Your task to perform on an android device: turn off smart reply in the gmail app Image 0: 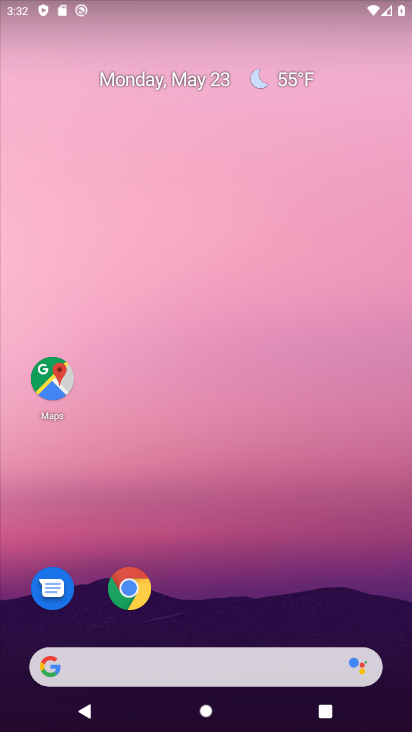
Step 0: drag from (245, 578) to (281, 109)
Your task to perform on an android device: turn off smart reply in the gmail app Image 1: 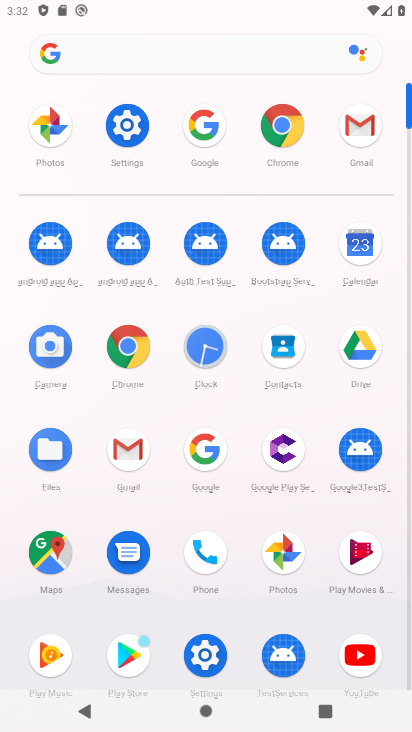
Step 1: click (359, 128)
Your task to perform on an android device: turn off smart reply in the gmail app Image 2: 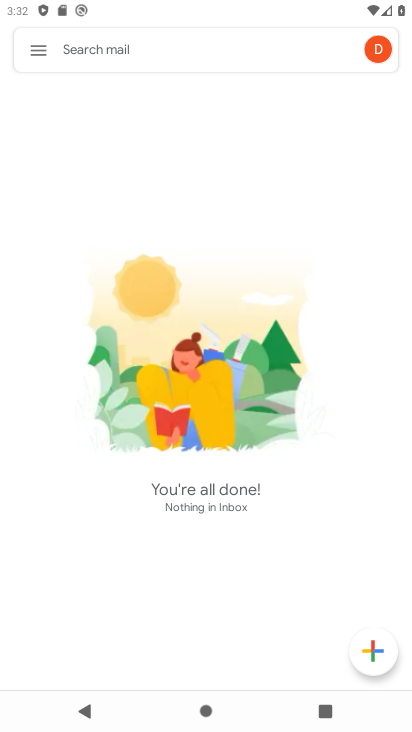
Step 2: click (47, 57)
Your task to perform on an android device: turn off smart reply in the gmail app Image 3: 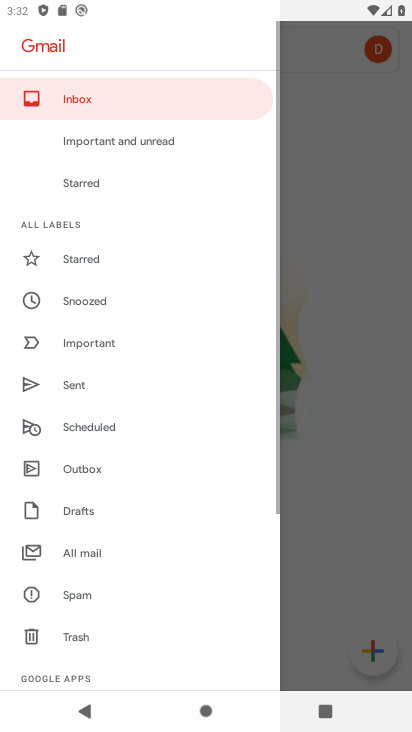
Step 3: drag from (88, 618) to (196, 219)
Your task to perform on an android device: turn off smart reply in the gmail app Image 4: 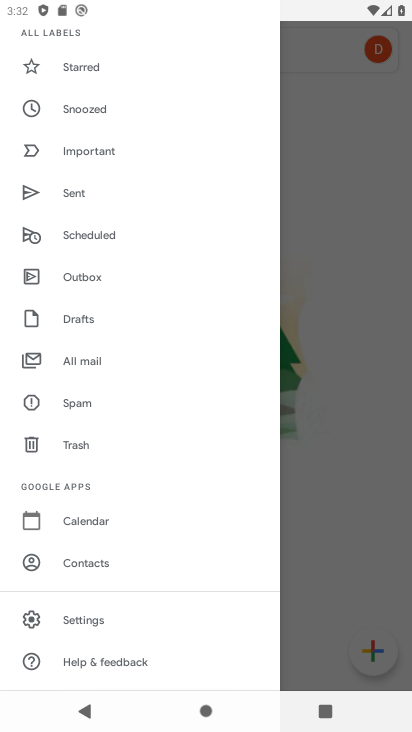
Step 4: click (28, 620)
Your task to perform on an android device: turn off smart reply in the gmail app Image 5: 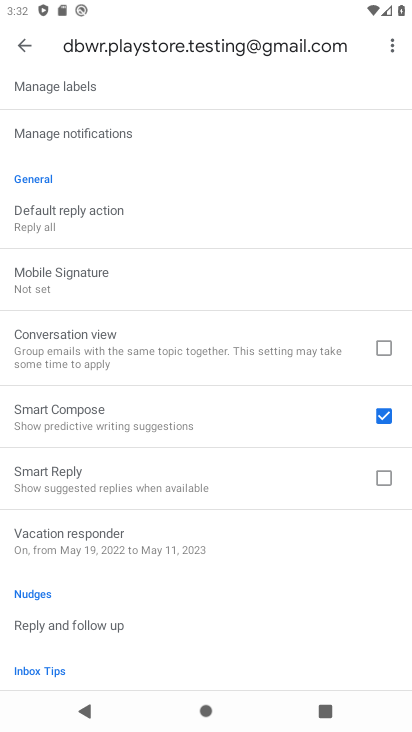
Step 5: task complete